Your task to perform on an android device: change alarm snooze length Image 0: 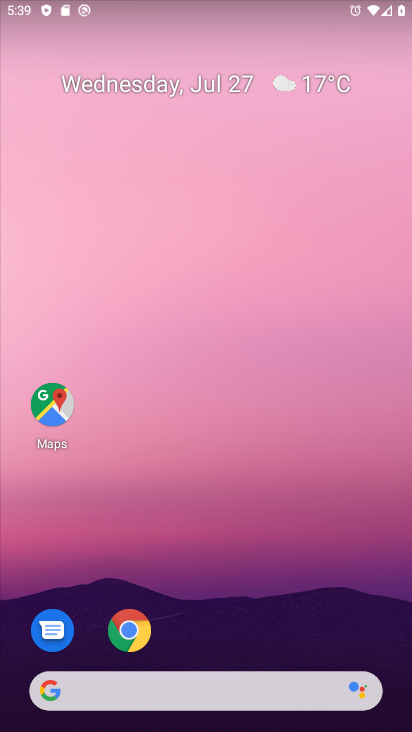
Step 0: drag from (228, 654) to (260, 227)
Your task to perform on an android device: change alarm snooze length Image 1: 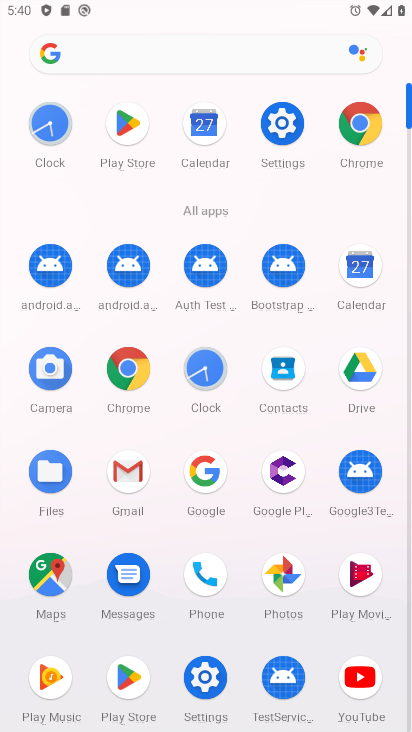
Step 1: click (204, 363)
Your task to perform on an android device: change alarm snooze length Image 2: 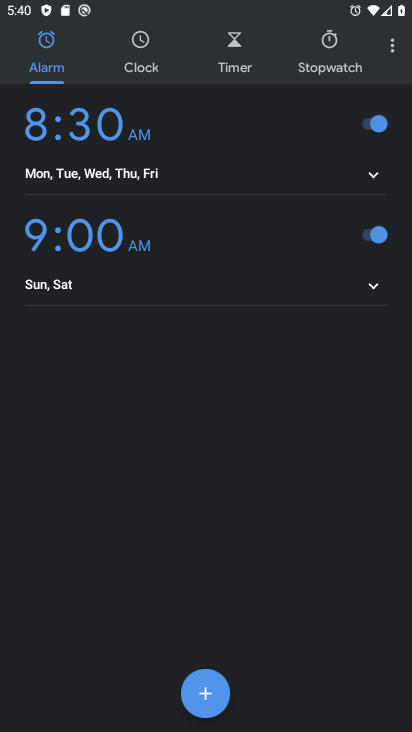
Step 2: click (391, 44)
Your task to perform on an android device: change alarm snooze length Image 3: 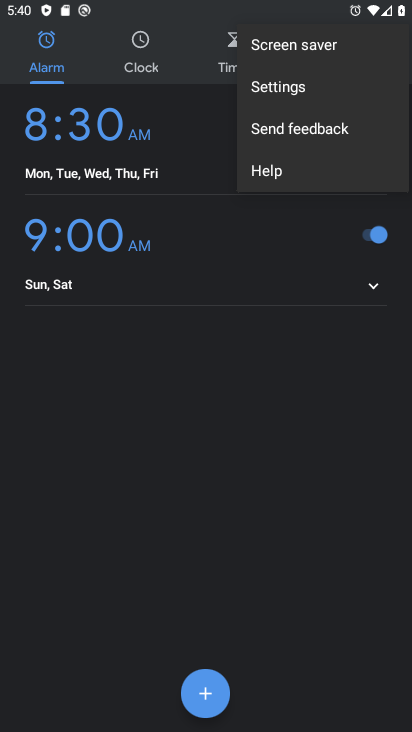
Step 3: click (293, 90)
Your task to perform on an android device: change alarm snooze length Image 4: 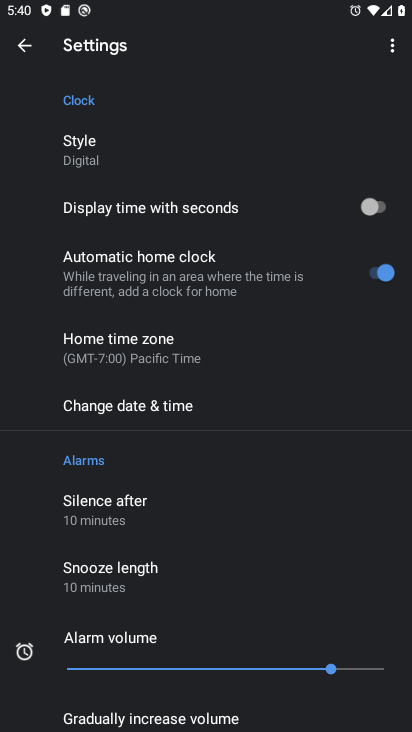
Step 4: click (154, 582)
Your task to perform on an android device: change alarm snooze length Image 5: 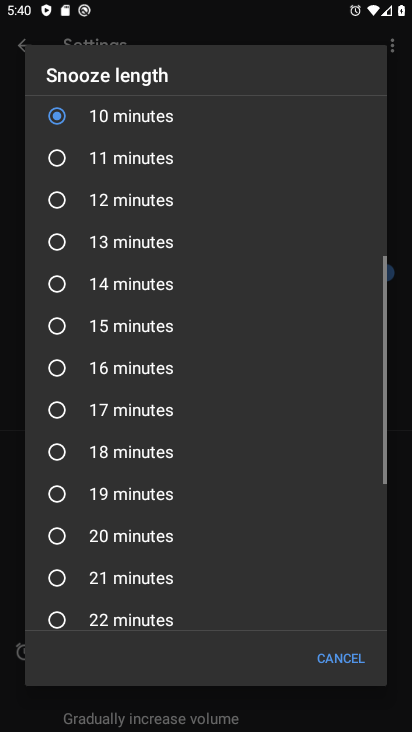
Step 5: drag from (71, 161) to (52, 612)
Your task to perform on an android device: change alarm snooze length Image 6: 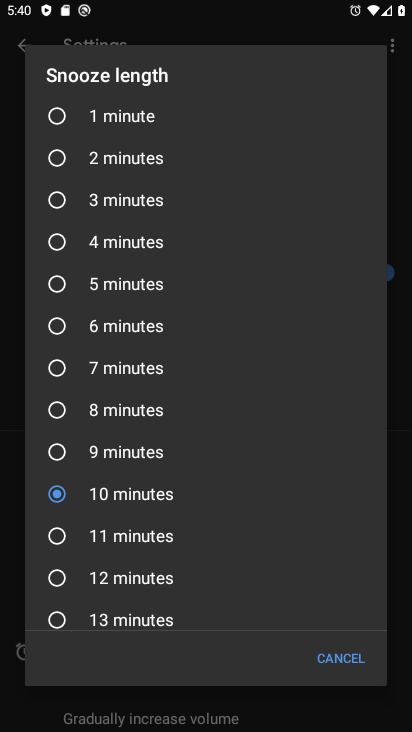
Step 6: click (59, 209)
Your task to perform on an android device: change alarm snooze length Image 7: 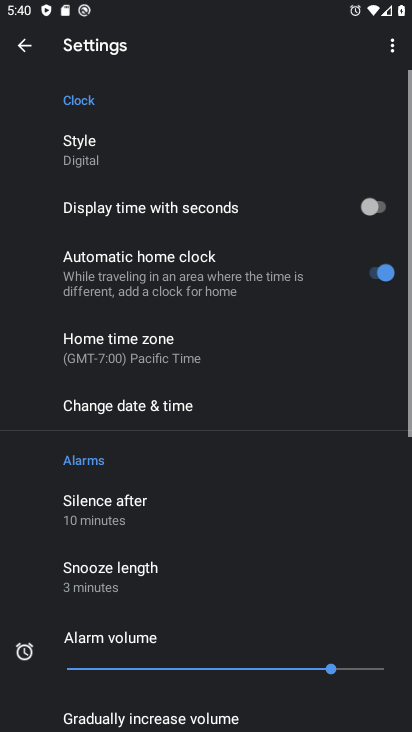
Step 7: task complete